Your task to perform on an android device: turn pop-ups on in chrome Image 0: 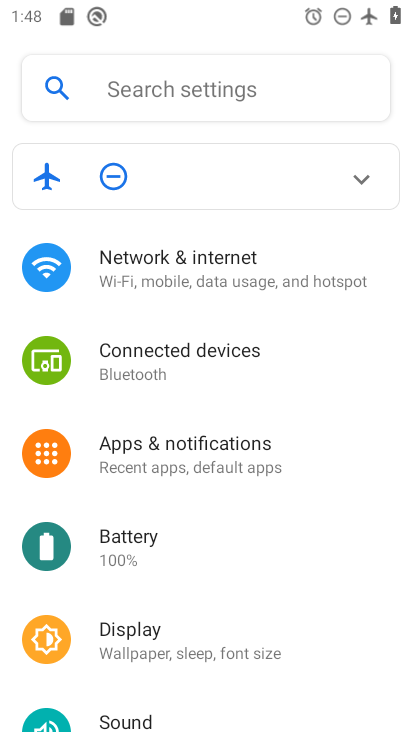
Step 0: drag from (227, 607) to (194, 62)
Your task to perform on an android device: turn pop-ups on in chrome Image 1: 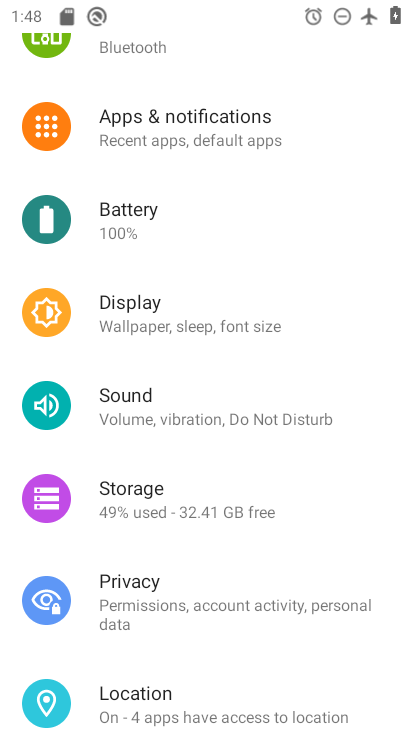
Step 1: press home button
Your task to perform on an android device: turn pop-ups on in chrome Image 2: 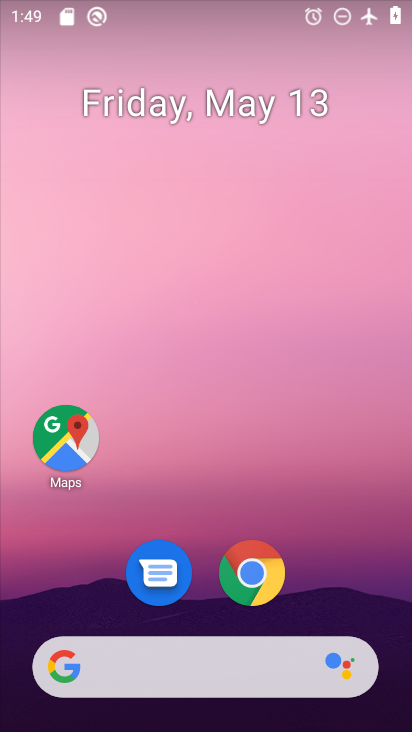
Step 2: click (240, 580)
Your task to perform on an android device: turn pop-ups on in chrome Image 3: 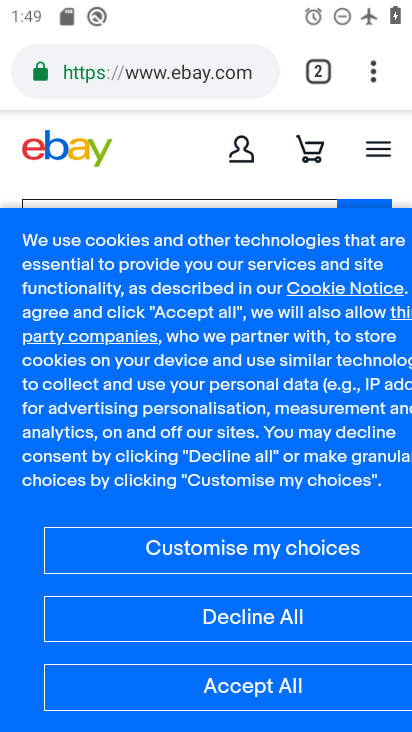
Step 3: click (379, 69)
Your task to perform on an android device: turn pop-ups on in chrome Image 4: 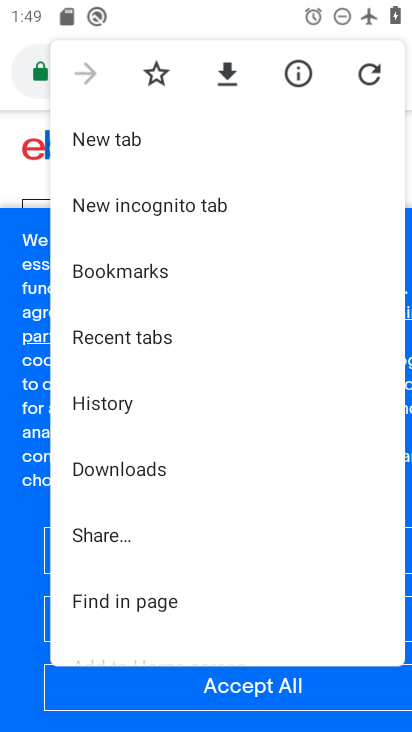
Step 4: drag from (254, 593) to (246, 108)
Your task to perform on an android device: turn pop-ups on in chrome Image 5: 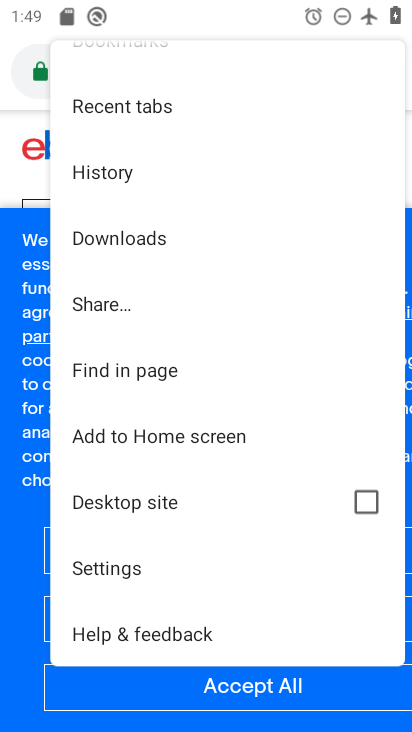
Step 5: click (152, 564)
Your task to perform on an android device: turn pop-ups on in chrome Image 6: 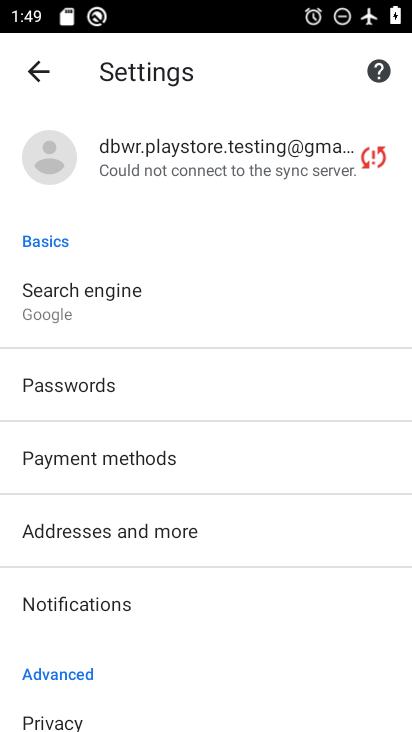
Step 6: drag from (227, 625) to (225, 3)
Your task to perform on an android device: turn pop-ups on in chrome Image 7: 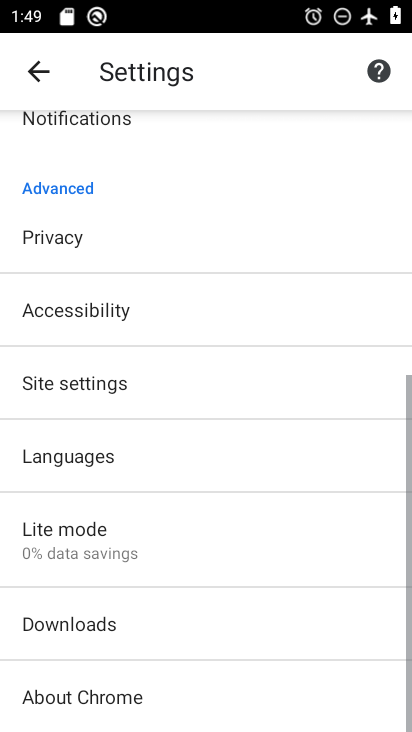
Step 7: click (99, 392)
Your task to perform on an android device: turn pop-ups on in chrome Image 8: 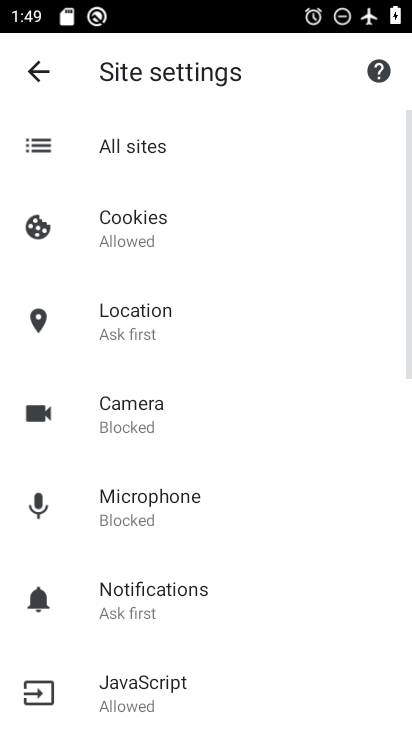
Step 8: drag from (162, 671) to (264, 29)
Your task to perform on an android device: turn pop-ups on in chrome Image 9: 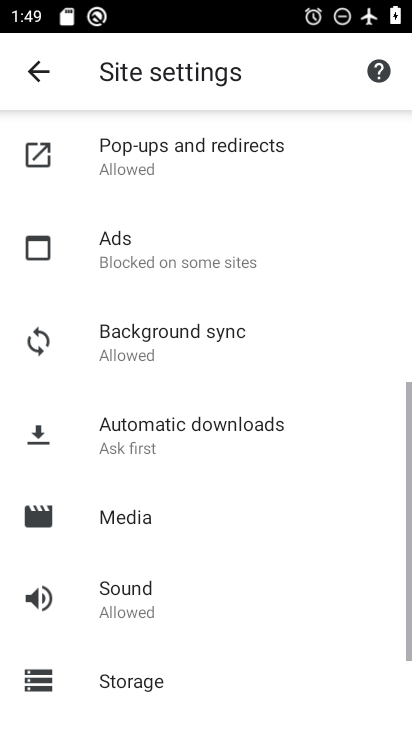
Step 9: click (207, 164)
Your task to perform on an android device: turn pop-ups on in chrome Image 10: 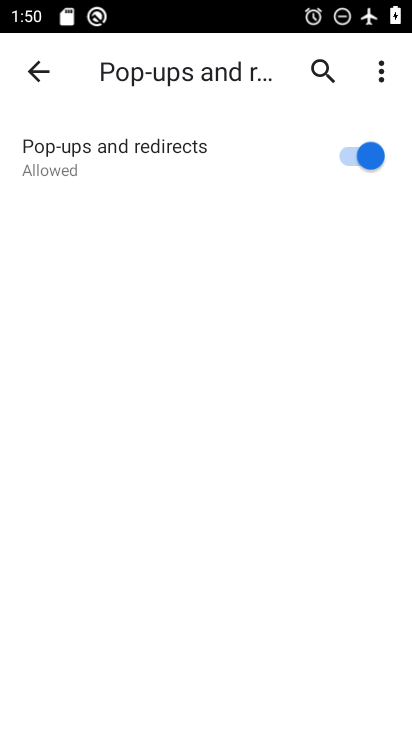
Step 10: task complete